Your task to perform on an android device: open chrome and create a bookmark for the current page Image 0: 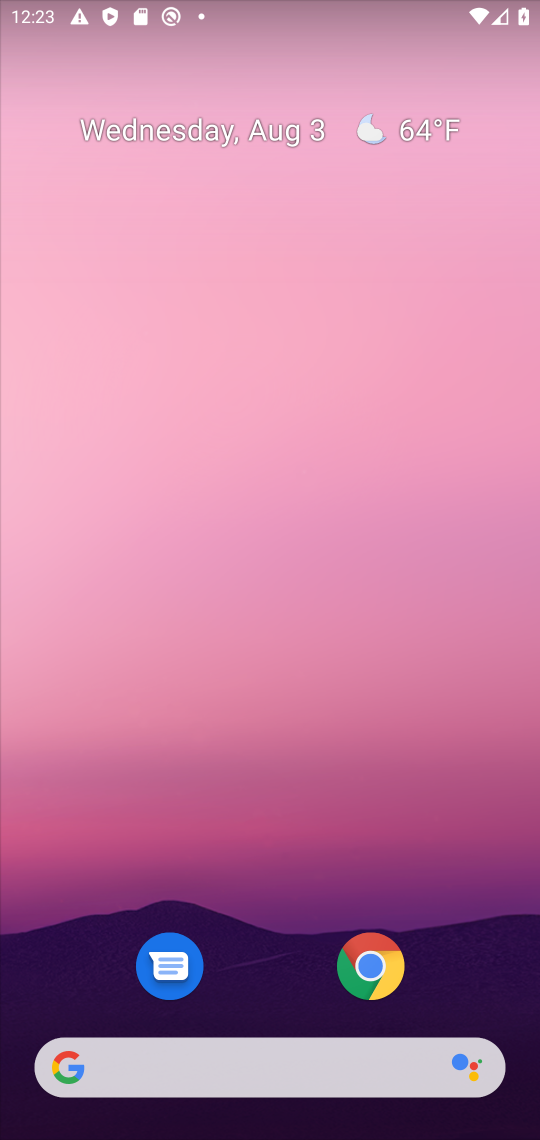
Step 0: click (357, 959)
Your task to perform on an android device: open chrome and create a bookmark for the current page Image 1: 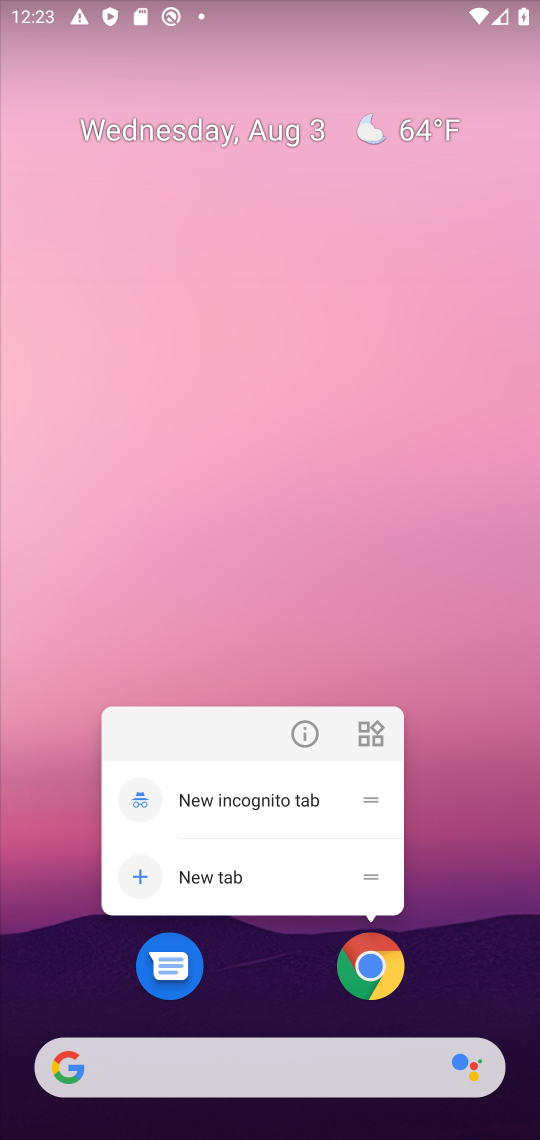
Step 1: click (370, 962)
Your task to perform on an android device: open chrome and create a bookmark for the current page Image 2: 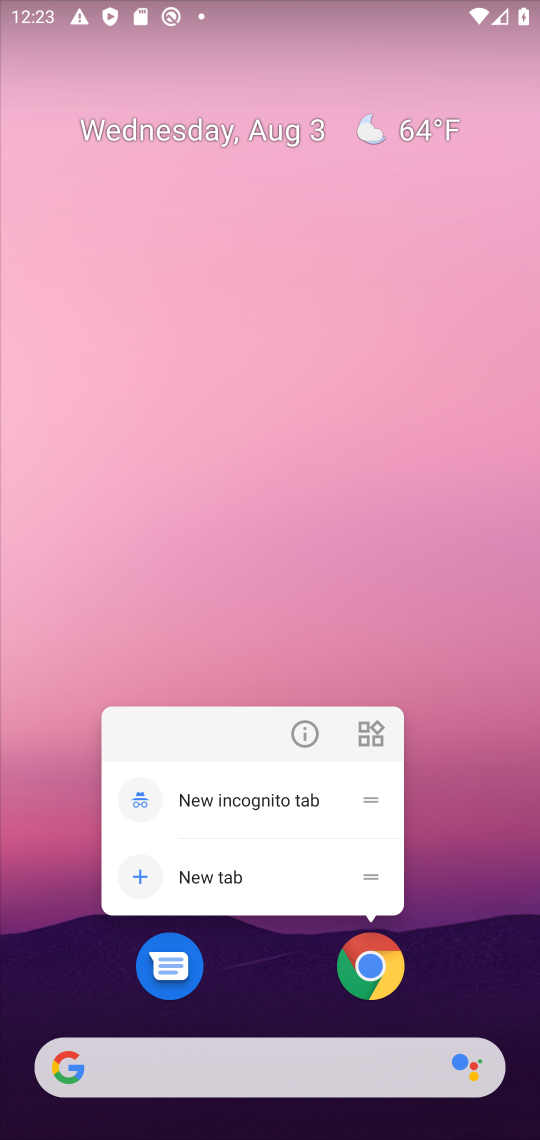
Step 2: click (395, 997)
Your task to perform on an android device: open chrome and create a bookmark for the current page Image 3: 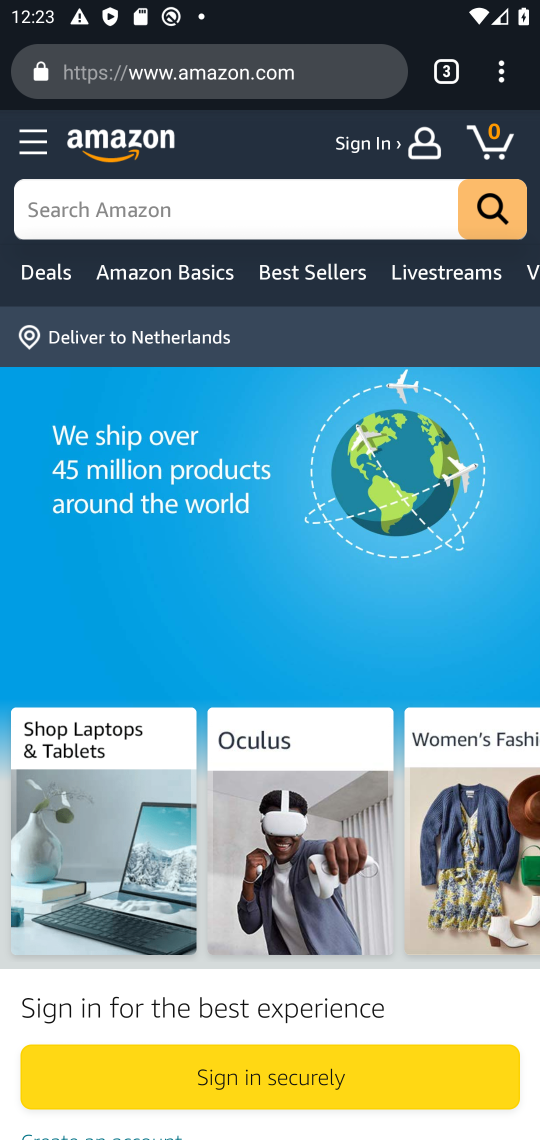
Step 3: click (496, 63)
Your task to perform on an android device: open chrome and create a bookmark for the current page Image 4: 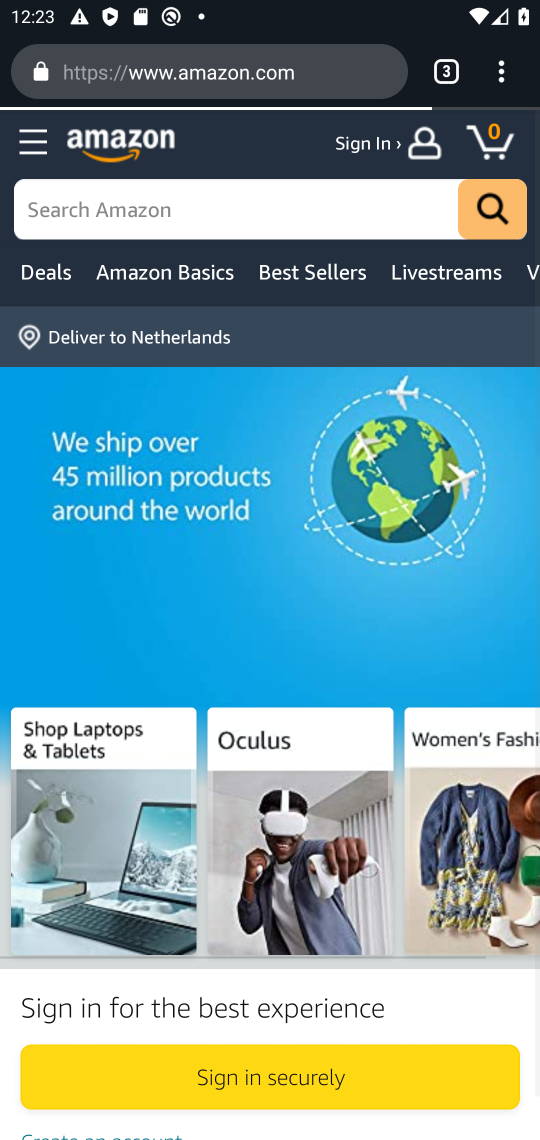
Step 4: click (496, 63)
Your task to perform on an android device: open chrome and create a bookmark for the current page Image 5: 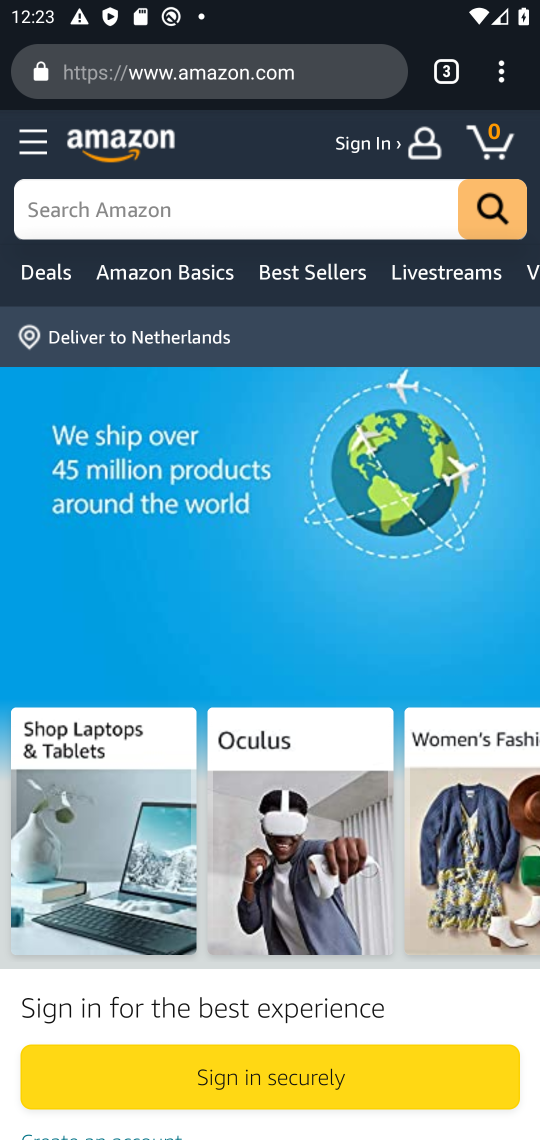
Step 5: task complete